Your task to perform on an android device: turn off notifications settings in the gmail app Image 0: 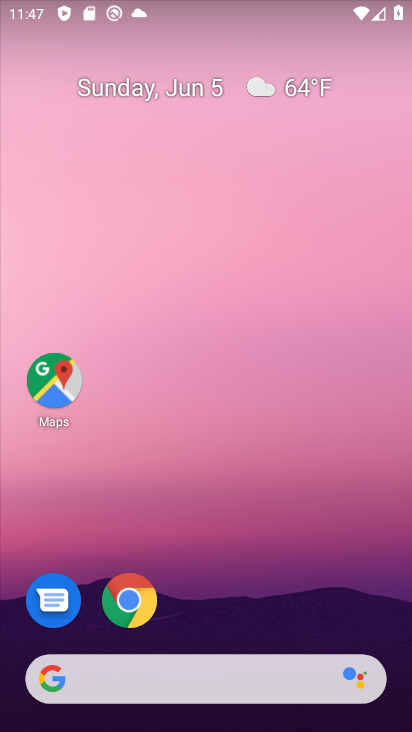
Step 0: drag from (178, 490) to (144, 205)
Your task to perform on an android device: turn off notifications settings in the gmail app Image 1: 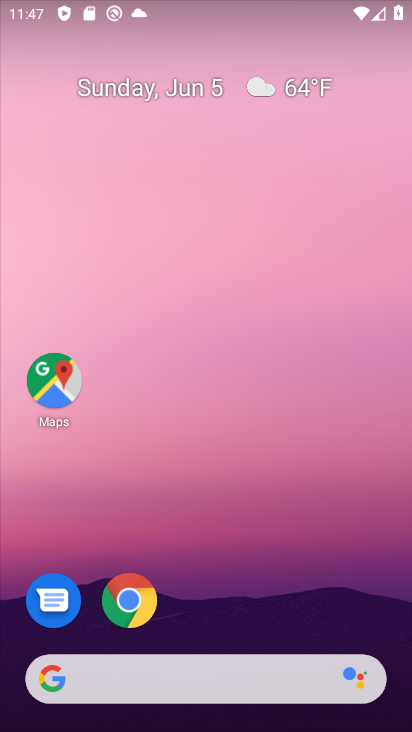
Step 1: drag from (272, 687) to (152, 115)
Your task to perform on an android device: turn off notifications settings in the gmail app Image 2: 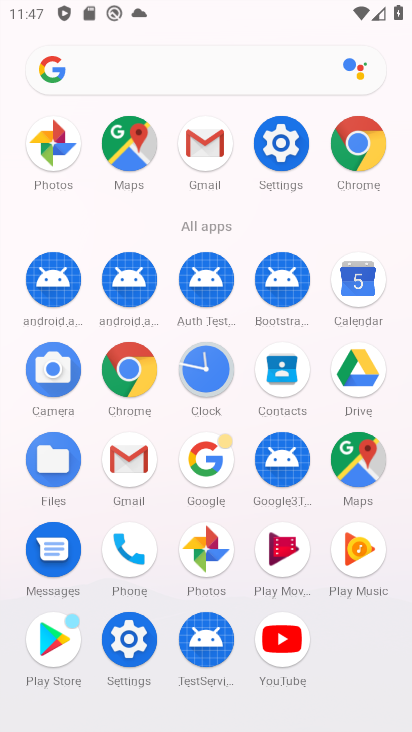
Step 2: click (138, 455)
Your task to perform on an android device: turn off notifications settings in the gmail app Image 3: 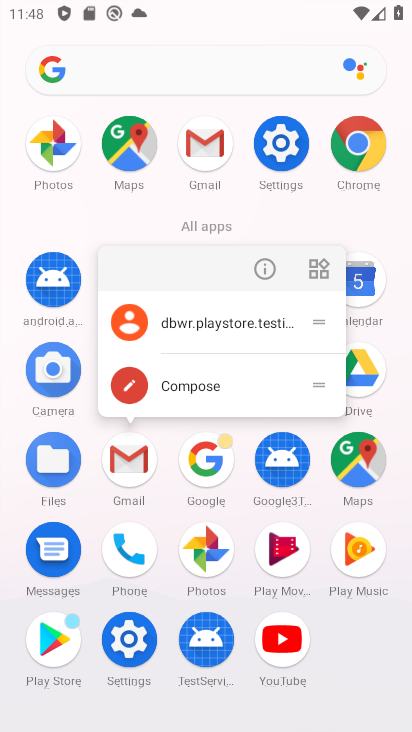
Step 3: click (138, 455)
Your task to perform on an android device: turn off notifications settings in the gmail app Image 4: 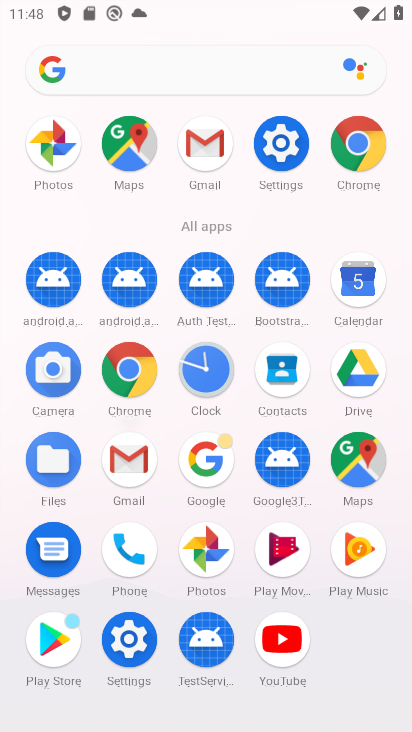
Step 4: click (138, 455)
Your task to perform on an android device: turn off notifications settings in the gmail app Image 5: 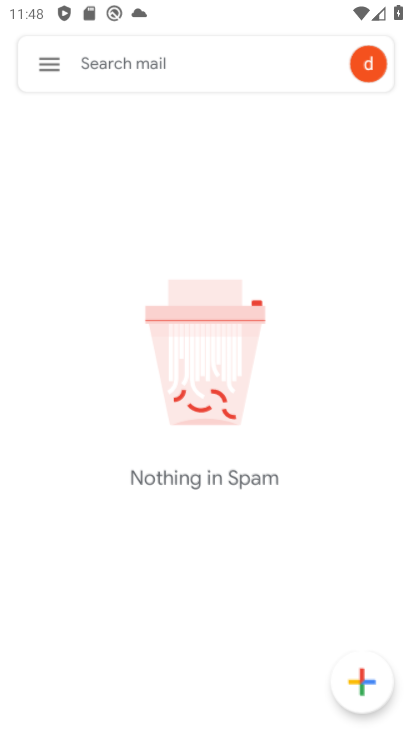
Step 5: click (138, 455)
Your task to perform on an android device: turn off notifications settings in the gmail app Image 6: 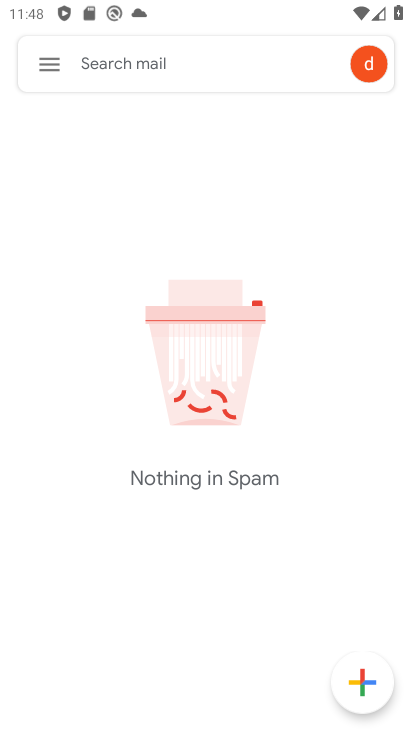
Step 6: click (138, 455)
Your task to perform on an android device: turn off notifications settings in the gmail app Image 7: 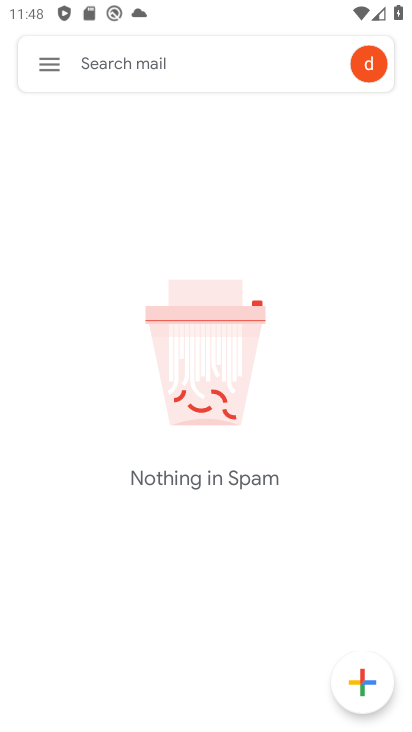
Step 7: drag from (36, 67) to (58, 143)
Your task to perform on an android device: turn off notifications settings in the gmail app Image 8: 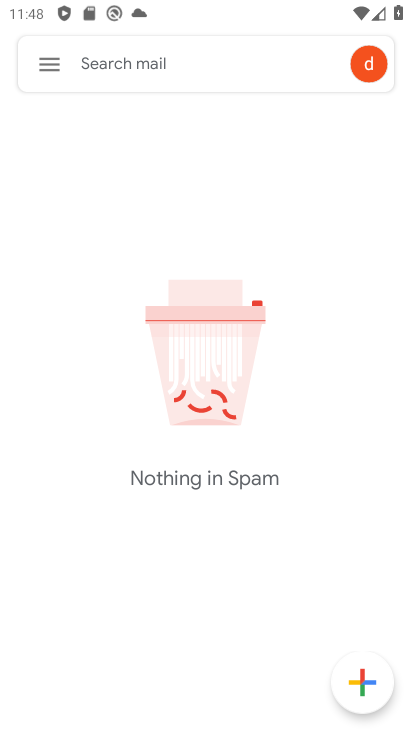
Step 8: click (45, 70)
Your task to perform on an android device: turn off notifications settings in the gmail app Image 9: 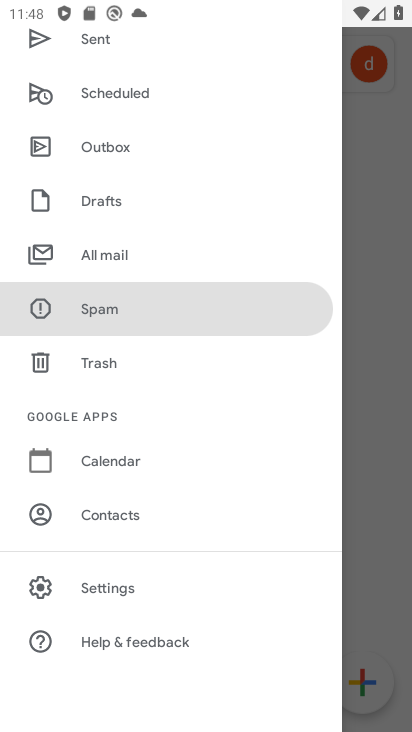
Step 9: click (101, 579)
Your task to perform on an android device: turn off notifications settings in the gmail app Image 10: 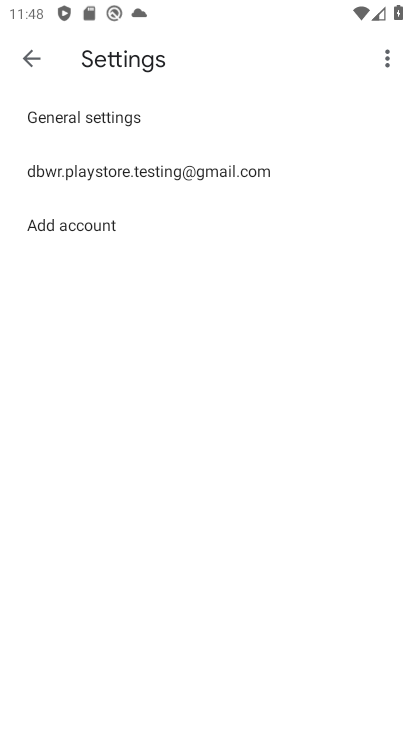
Step 10: click (142, 171)
Your task to perform on an android device: turn off notifications settings in the gmail app Image 11: 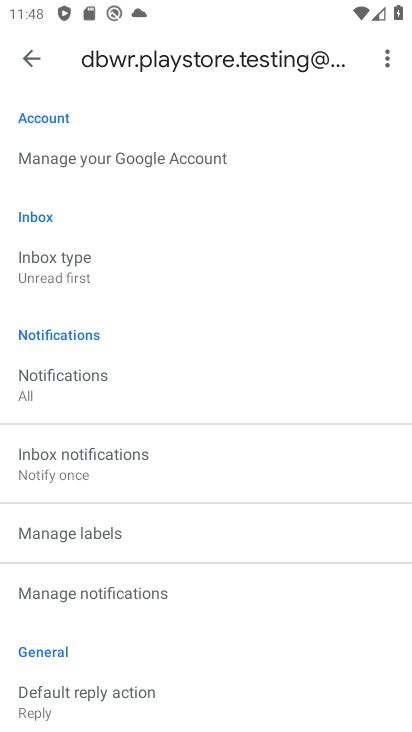
Step 11: click (67, 376)
Your task to perform on an android device: turn off notifications settings in the gmail app Image 12: 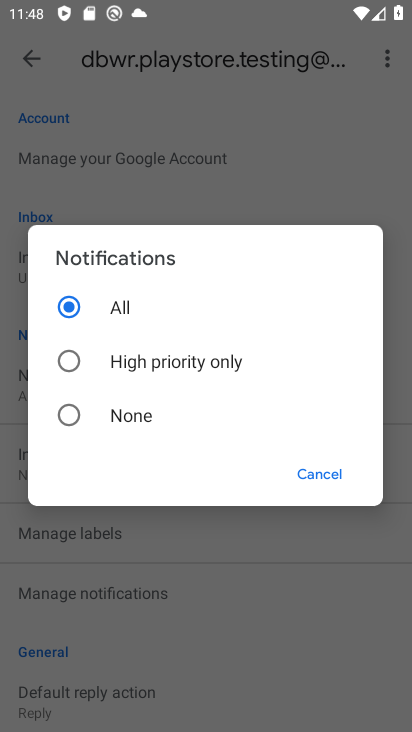
Step 12: click (67, 356)
Your task to perform on an android device: turn off notifications settings in the gmail app Image 13: 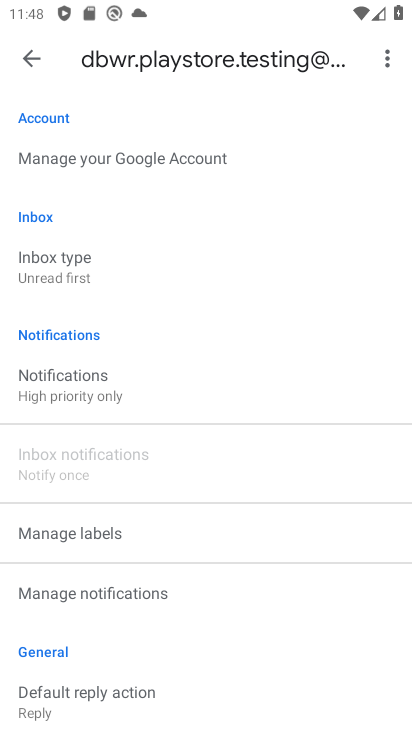
Step 13: task complete